Your task to perform on an android device: set the timer Image 0: 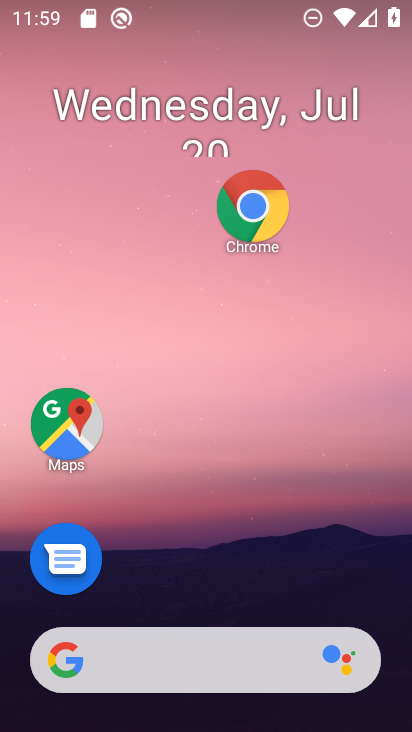
Step 0: drag from (213, 549) to (186, 1)
Your task to perform on an android device: set the timer Image 1: 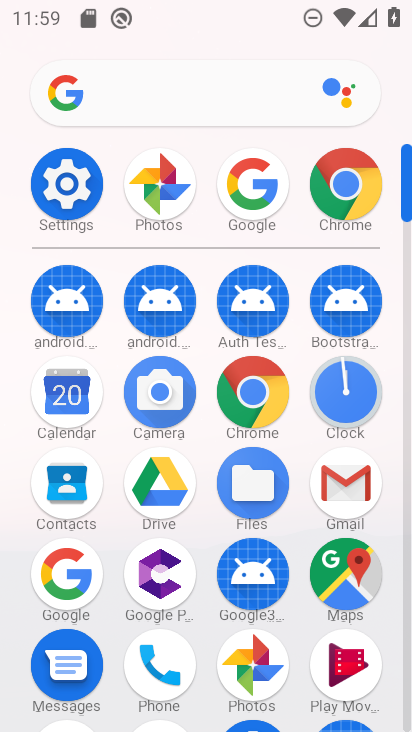
Step 1: click (347, 391)
Your task to perform on an android device: set the timer Image 2: 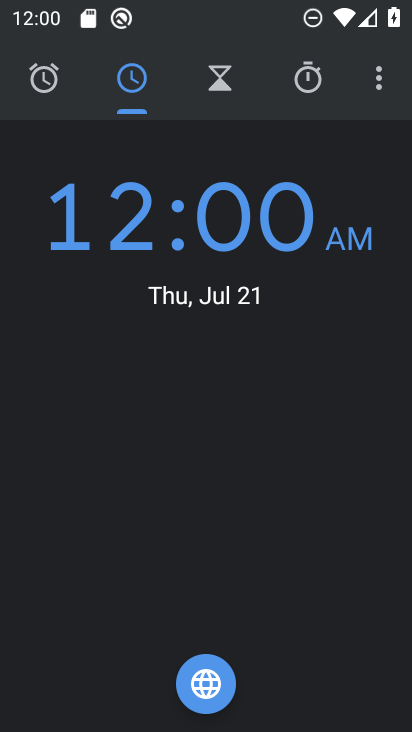
Step 2: click (211, 88)
Your task to perform on an android device: set the timer Image 3: 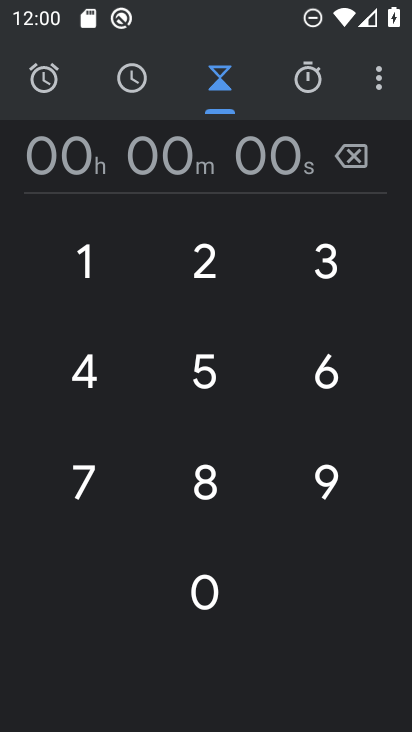
Step 3: click (192, 262)
Your task to perform on an android device: set the timer Image 4: 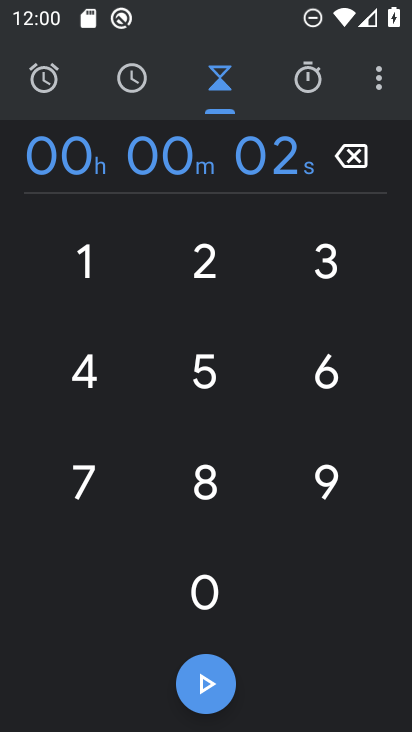
Step 4: click (208, 697)
Your task to perform on an android device: set the timer Image 5: 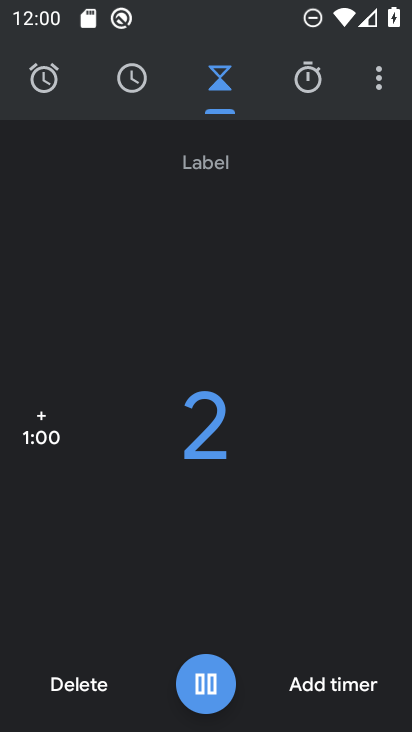
Step 5: task complete